Your task to perform on an android device: Open Reddit.com Image 0: 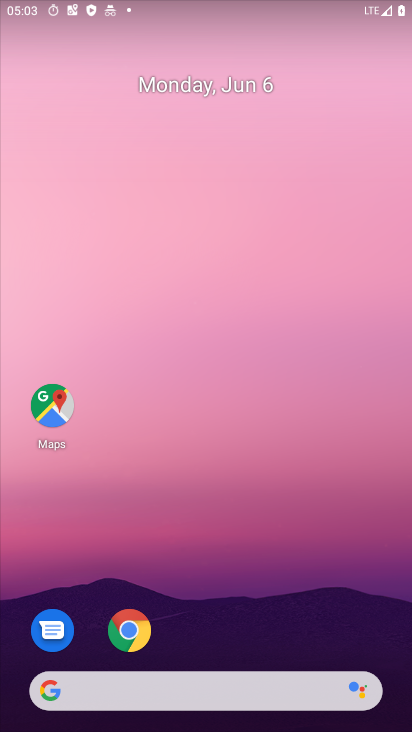
Step 0: drag from (197, 649) to (350, 54)
Your task to perform on an android device: Open Reddit.com Image 1: 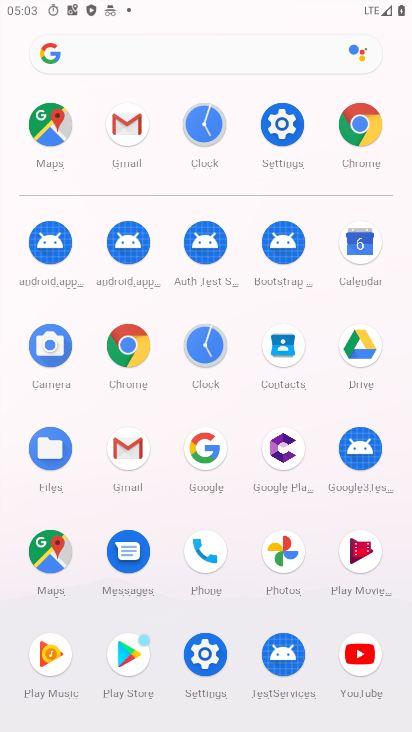
Step 1: click (123, 351)
Your task to perform on an android device: Open Reddit.com Image 2: 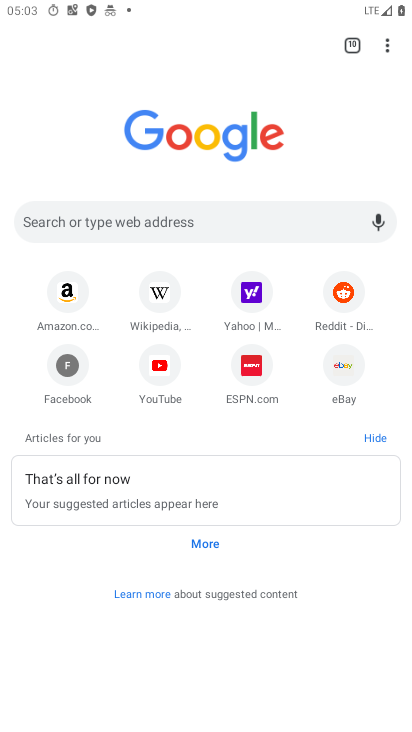
Step 2: click (161, 227)
Your task to perform on an android device: Open Reddit.com Image 3: 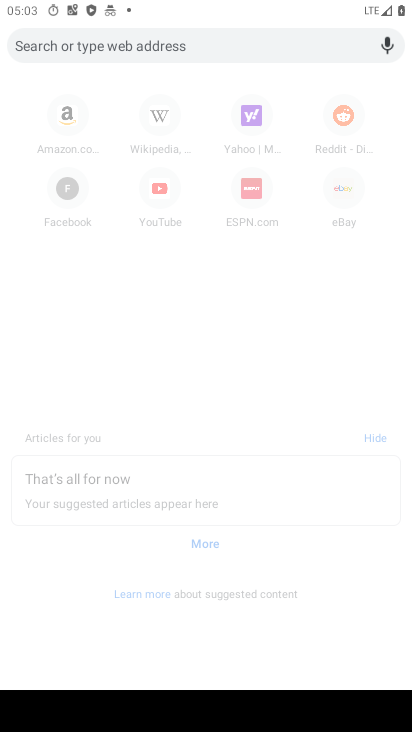
Step 3: type "Reddit.com"
Your task to perform on an android device: Open Reddit.com Image 4: 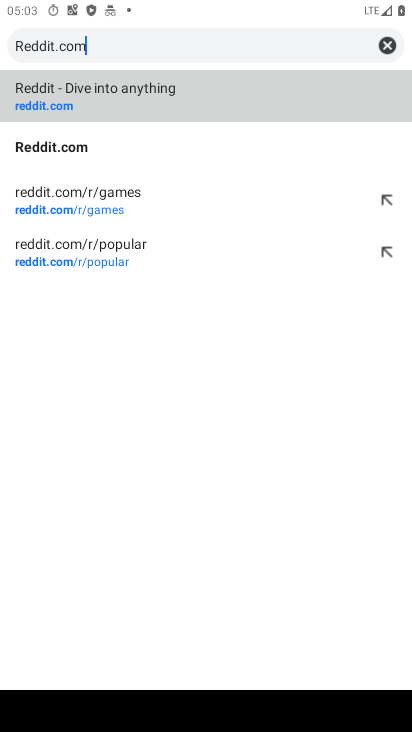
Step 4: click (60, 105)
Your task to perform on an android device: Open Reddit.com Image 5: 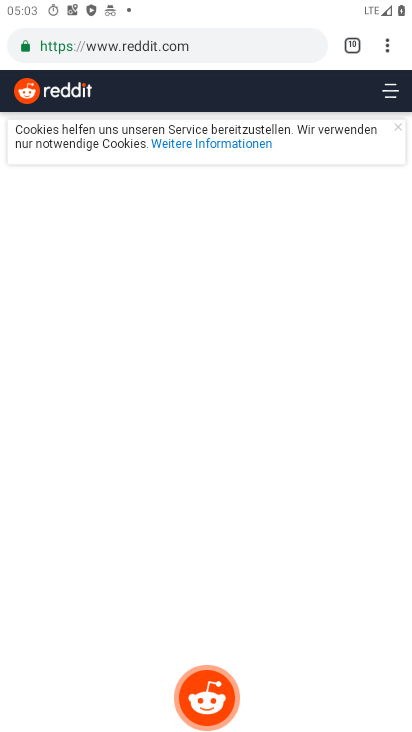
Step 5: task complete